Your task to perform on an android device: Go to network settings Image 0: 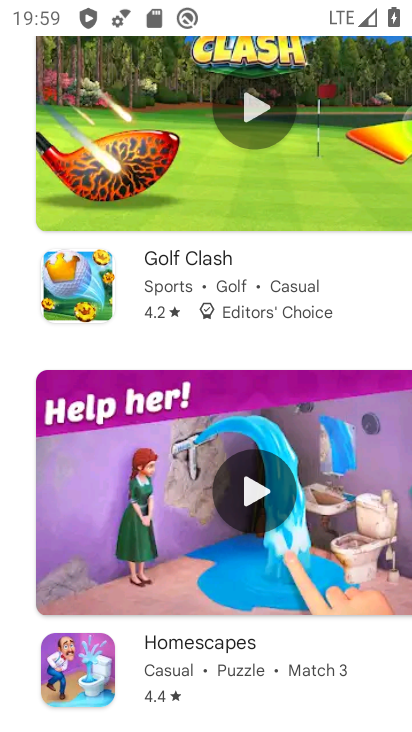
Step 0: drag from (215, 592) to (295, 96)
Your task to perform on an android device: Go to network settings Image 1: 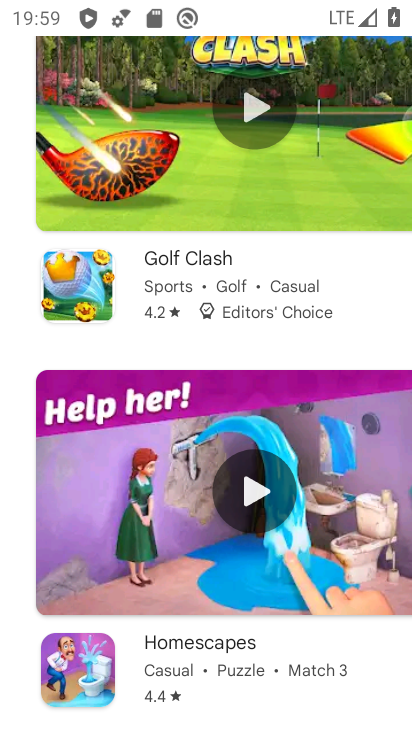
Step 1: press home button
Your task to perform on an android device: Go to network settings Image 2: 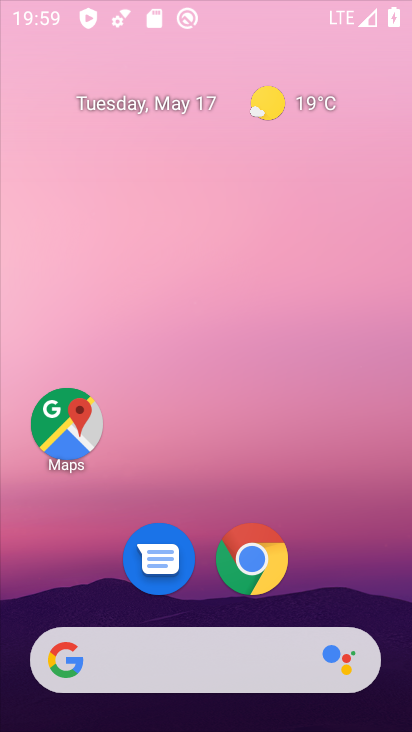
Step 2: drag from (232, 568) to (287, 164)
Your task to perform on an android device: Go to network settings Image 3: 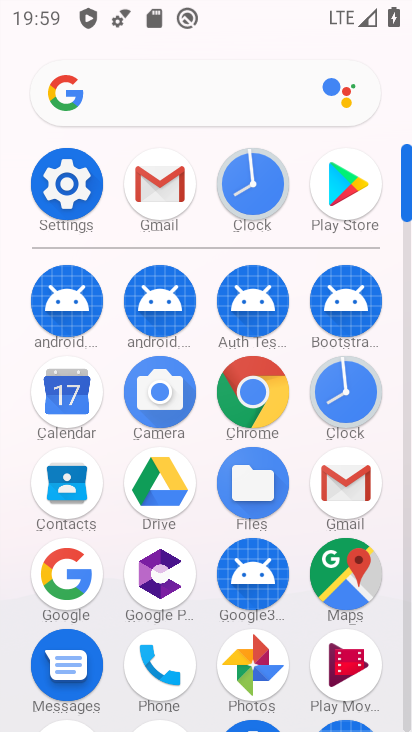
Step 3: click (74, 195)
Your task to perform on an android device: Go to network settings Image 4: 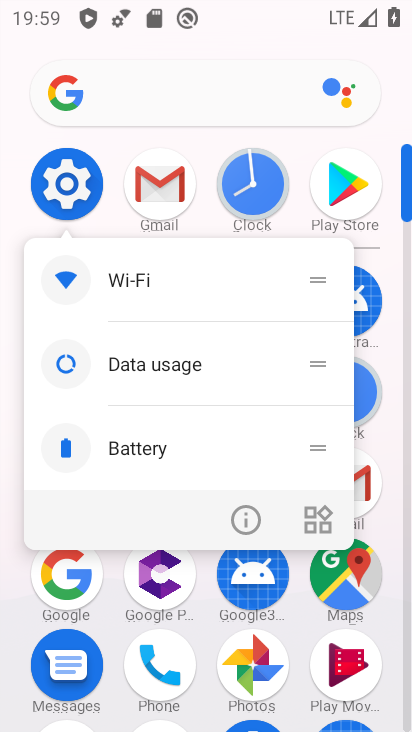
Step 4: click (252, 523)
Your task to perform on an android device: Go to network settings Image 5: 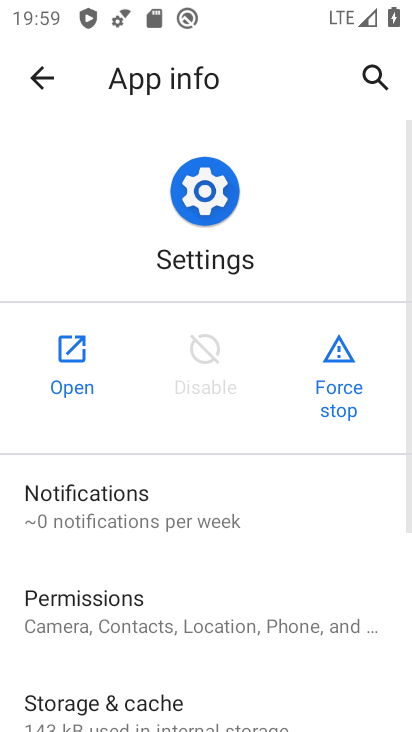
Step 5: click (49, 372)
Your task to perform on an android device: Go to network settings Image 6: 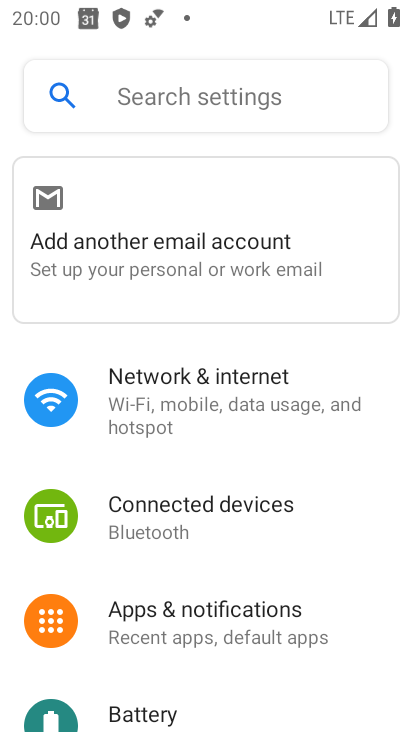
Step 6: click (154, 378)
Your task to perform on an android device: Go to network settings Image 7: 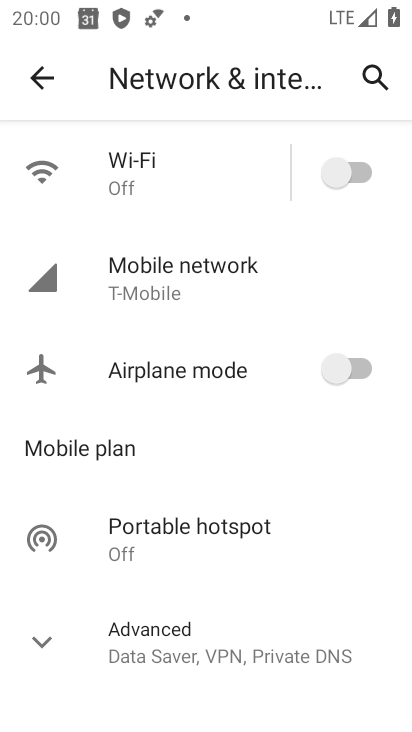
Step 7: task complete